Your task to perform on an android device: uninstall "Pluto TV - Live TV and Movies" Image 0: 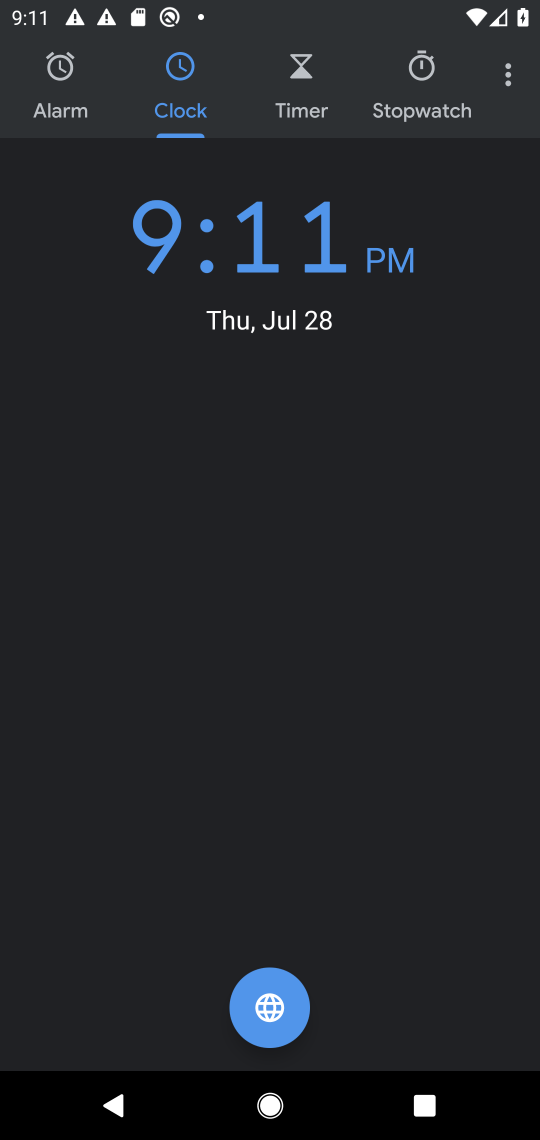
Step 0: press home button
Your task to perform on an android device: uninstall "Pluto TV - Live TV and Movies" Image 1: 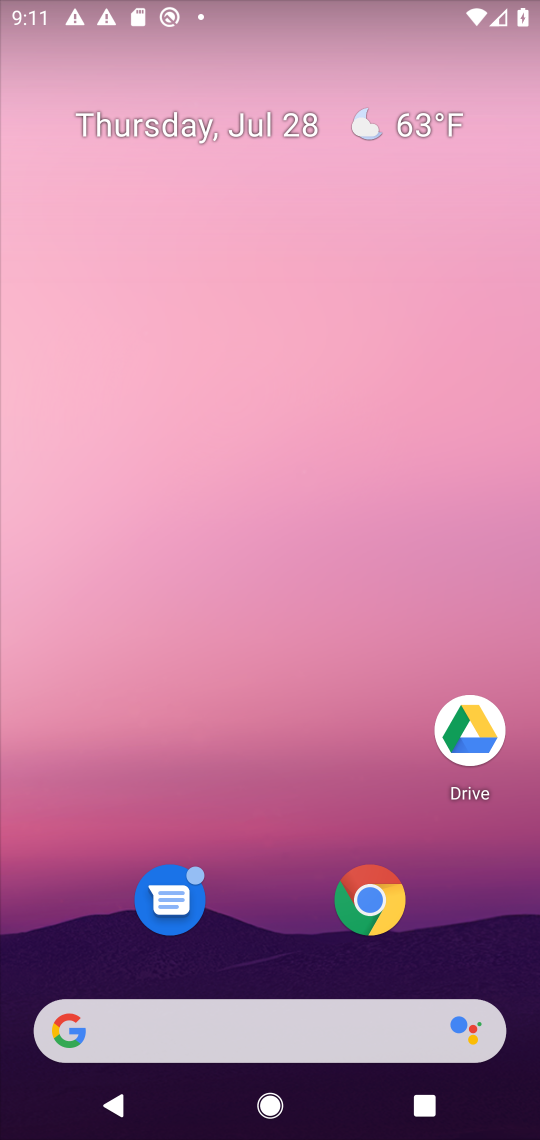
Step 1: task complete